Your task to perform on an android device: change the clock style Image 0: 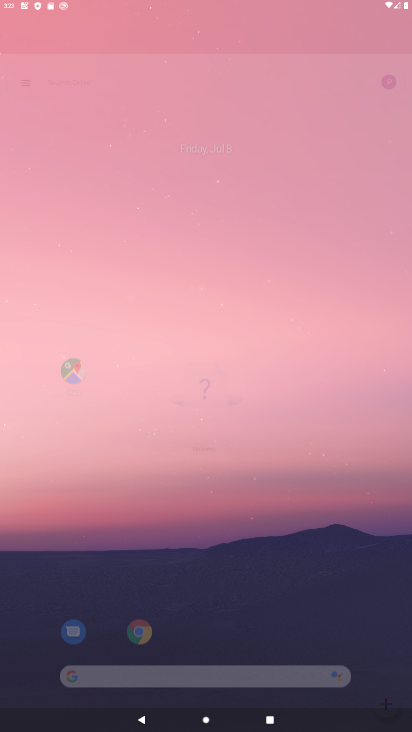
Step 0: press home button
Your task to perform on an android device: change the clock style Image 1: 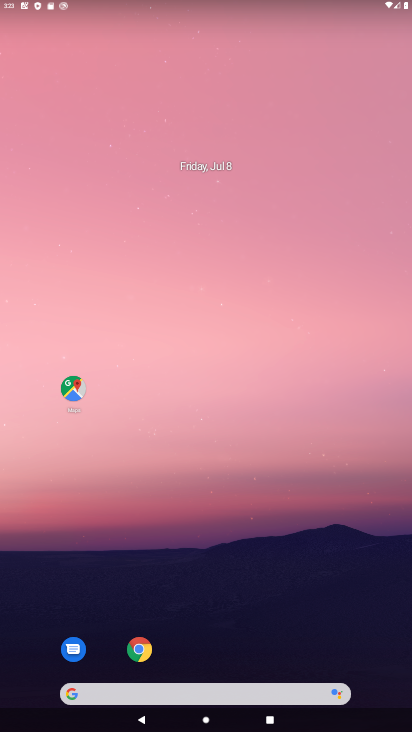
Step 1: drag from (233, 635) to (147, 170)
Your task to perform on an android device: change the clock style Image 2: 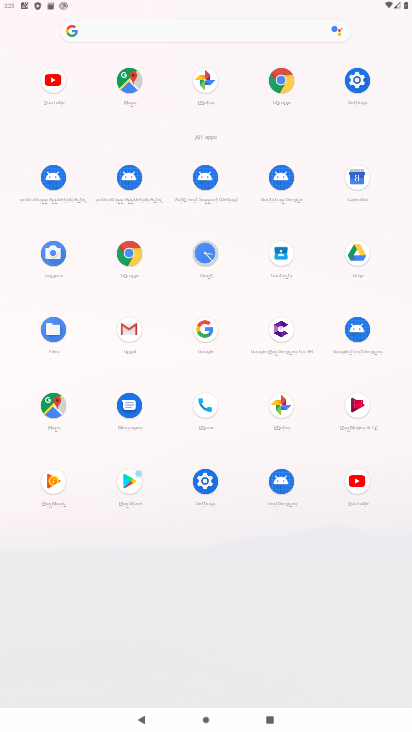
Step 2: click (207, 260)
Your task to perform on an android device: change the clock style Image 3: 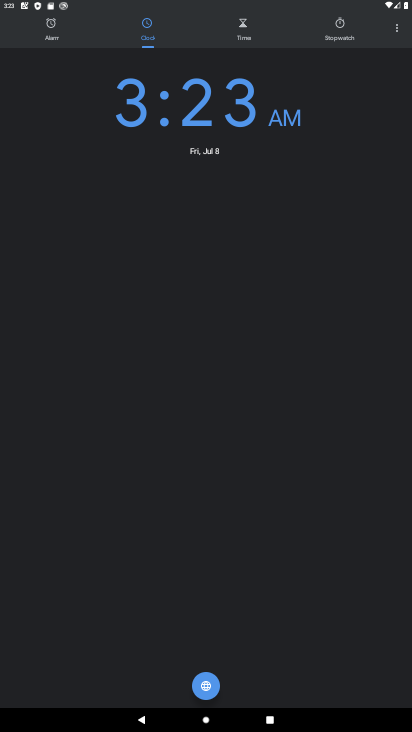
Step 3: click (398, 26)
Your task to perform on an android device: change the clock style Image 4: 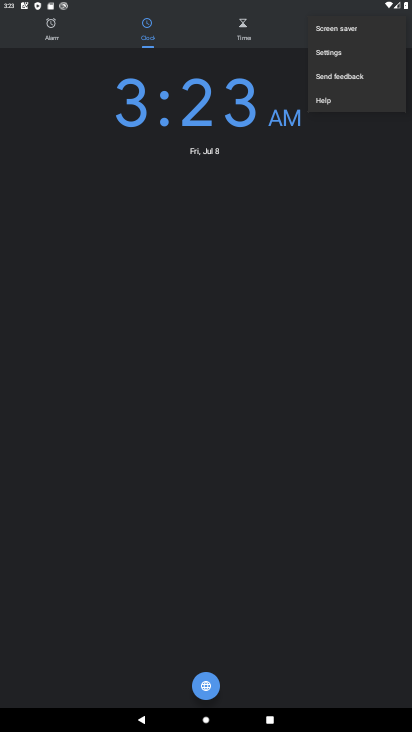
Step 4: click (327, 53)
Your task to perform on an android device: change the clock style Image 5: 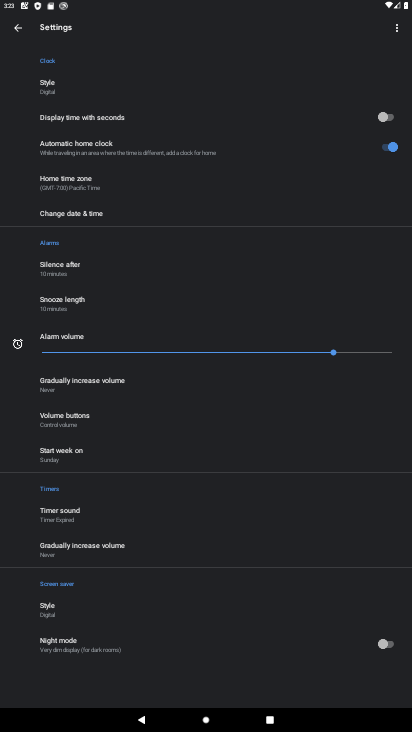
Step 5: click (50, 87)
Your task to perform on an android device: change the clock style Image 6: 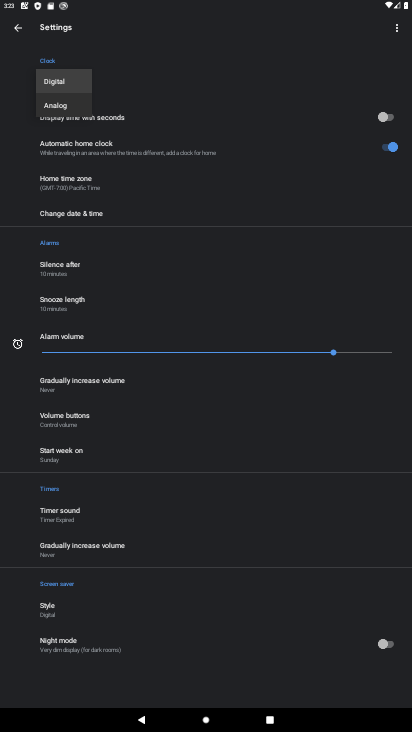
Step 6: click (66, 106)
Your task to perform on an android device: change the clock style Image 7: 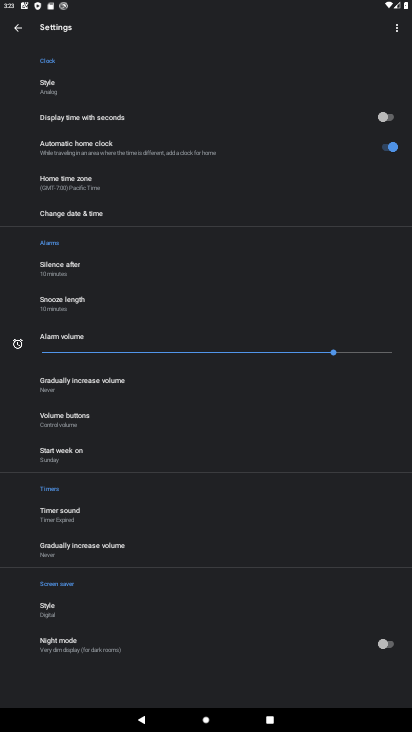
Step 7: task complete